Your task to perform on an android device: Search for seafood restaurants on Google Maps Image 0: 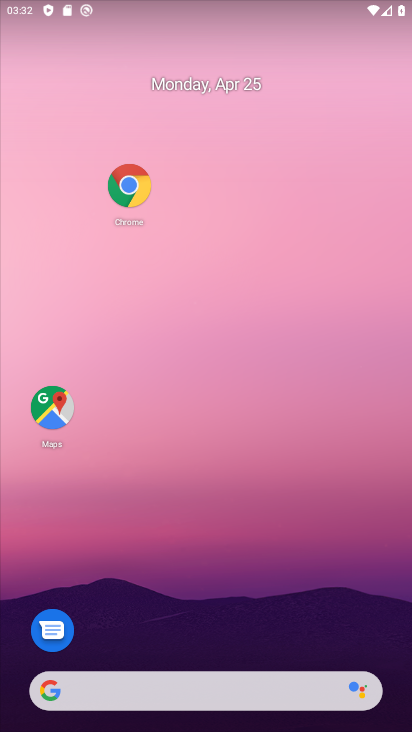
Step 0: click (60, 407)
Your task to perform on an android device: Search for seafood restaurants on Google Maps Image 1: 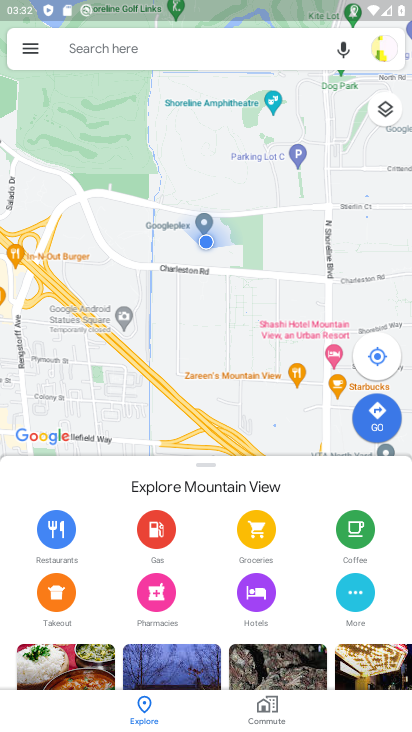
Step 1: click (108, 51)
Your task to perform on an android device: Search for seafood restaurants on Google Maps Image 2: 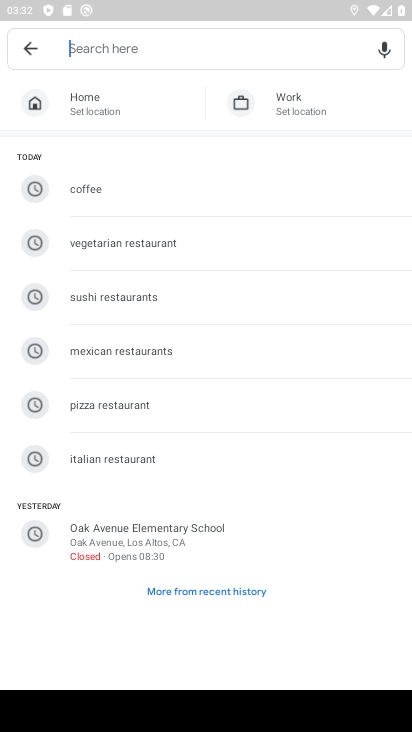
Step 2: type "seafood restaurants"
Your task to perform on an android device: Search for seafood restaurants on Google Maps Image 3: 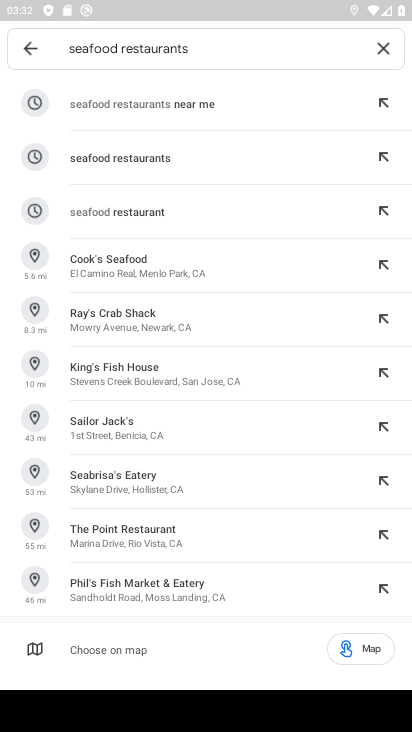
Step 3: click (161, 150)
Your task to perform on an android device: Search for seafood restaurants on Google Maps Image 4: 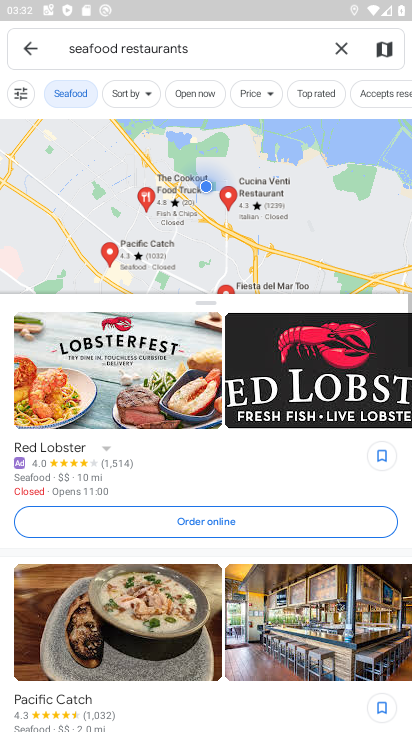
Step 4: task complete